Your task to perform on an android device: Add energizer triple a to the cart on walmart, then select checkout. Image 0: 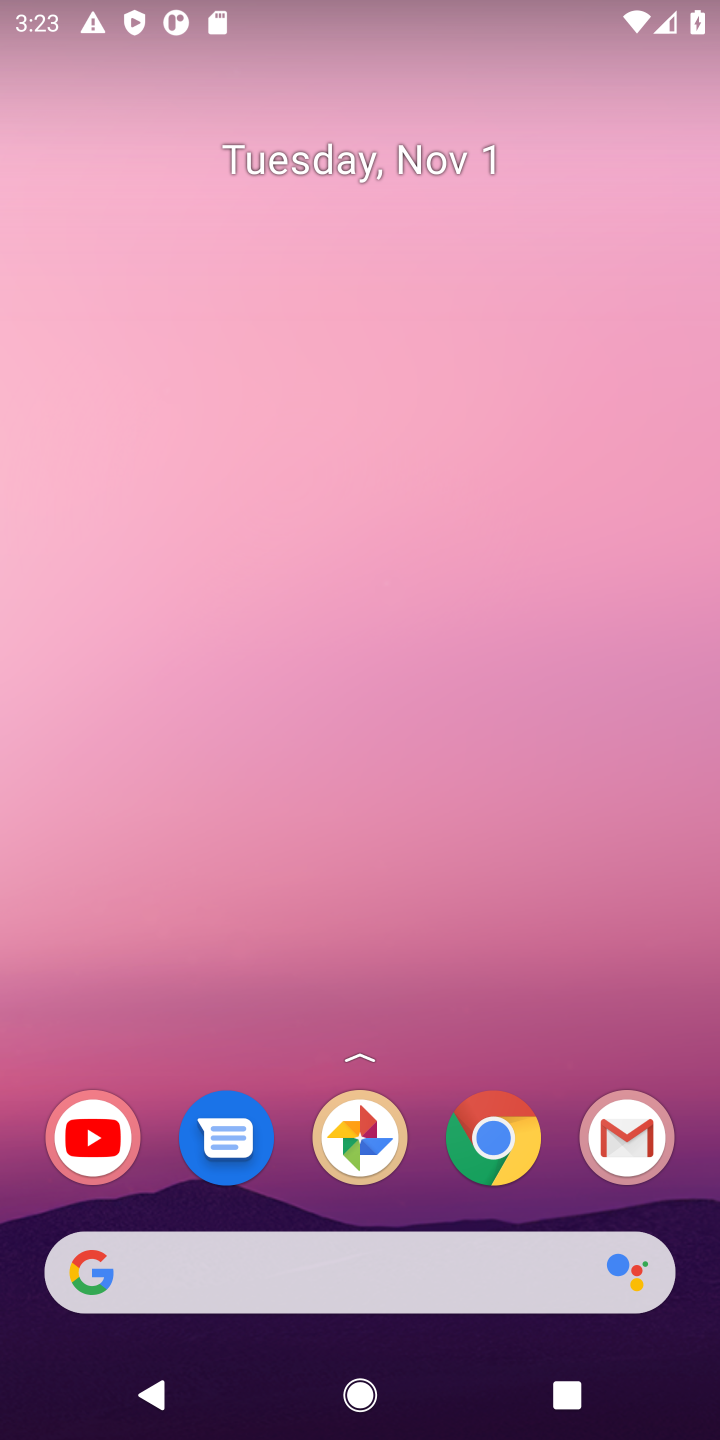
Step 0: click (498, 1145)
Your task to perform on an android device: Add energizer triple a to the cart on walmart, then select checkout. Image 1: 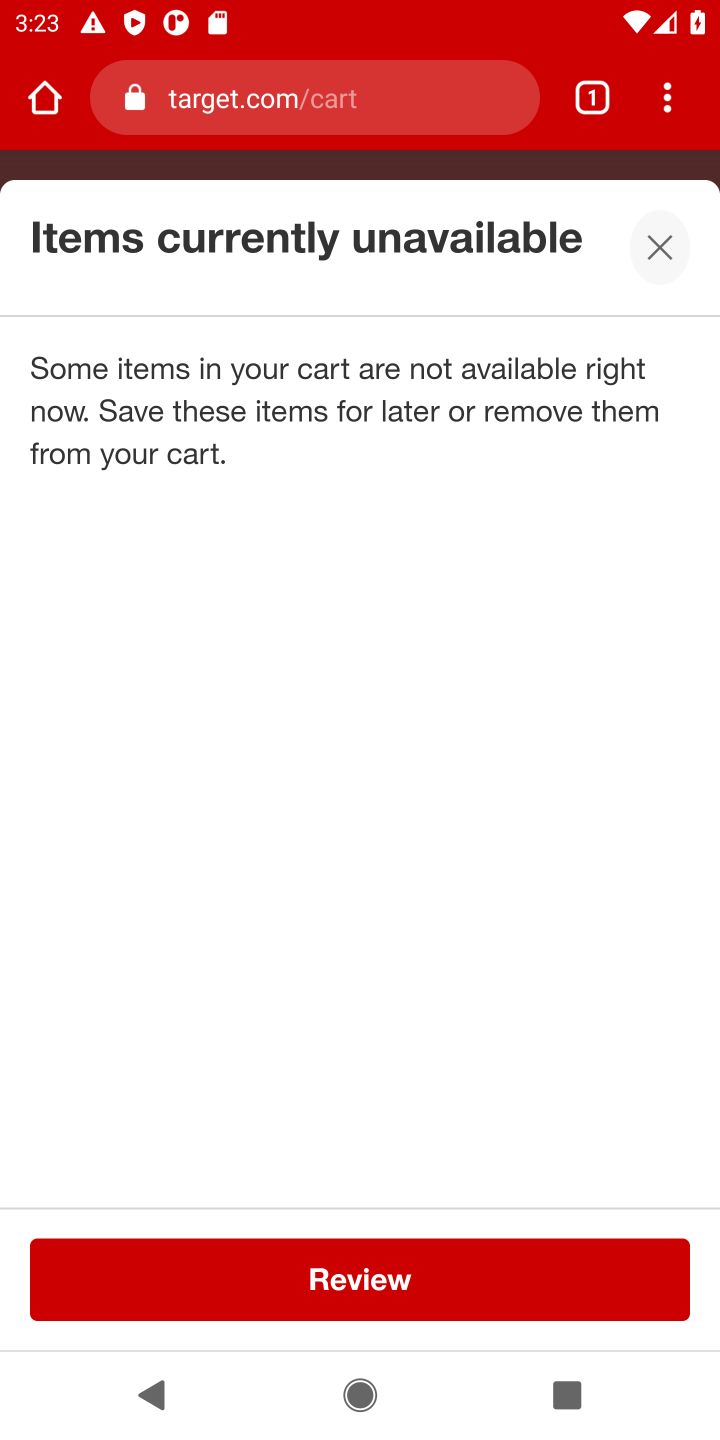
Step 1: click (346, 98)
Your task to perform on an android device: Add energizer triple a to the cart on walmart, then select checkout. Image 2: 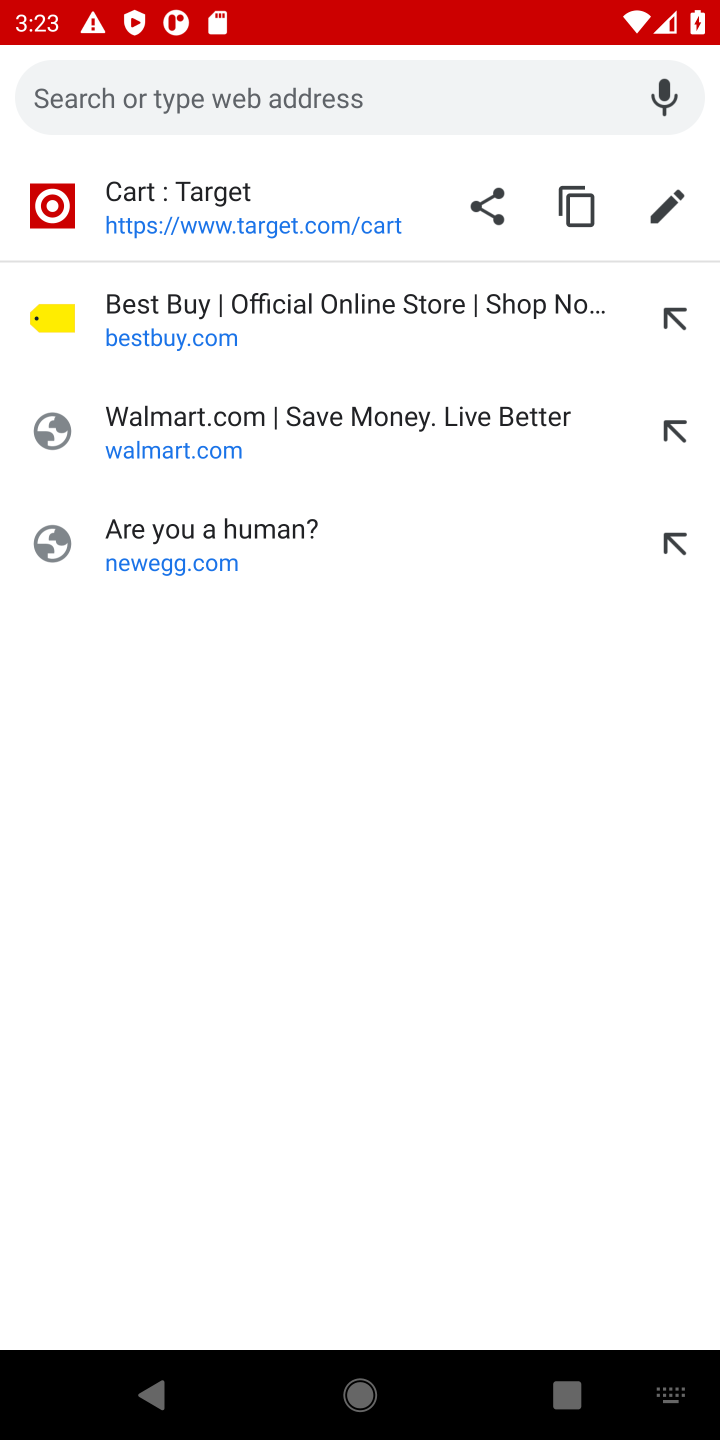
Step 2: type "walmart"
Your task to perform on an android device: Add energizer triple a to the cart on walmart, then select checkout. Image 3: 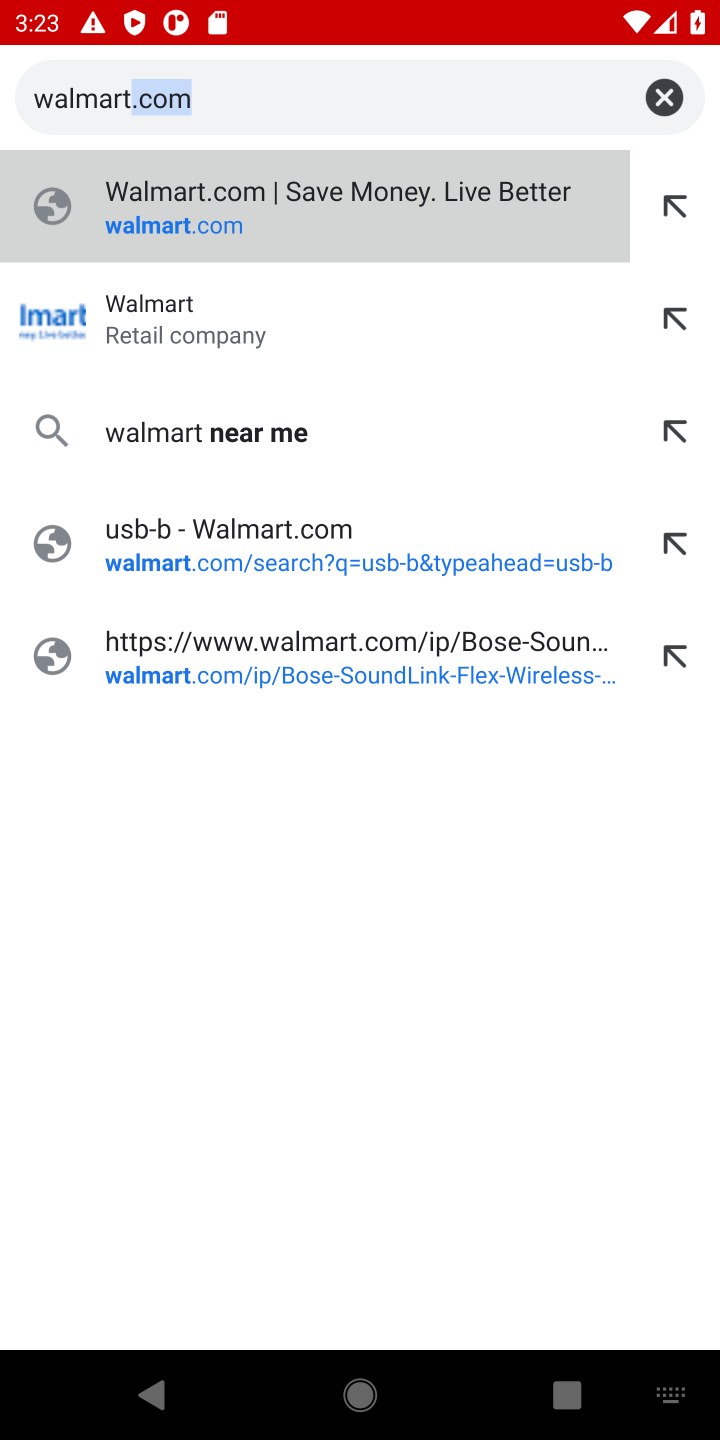
Step 3: click (422, 97)
Your task to perform on an android device: Add energizer triple a to the cart on walmart, then select checkout. Image 4: 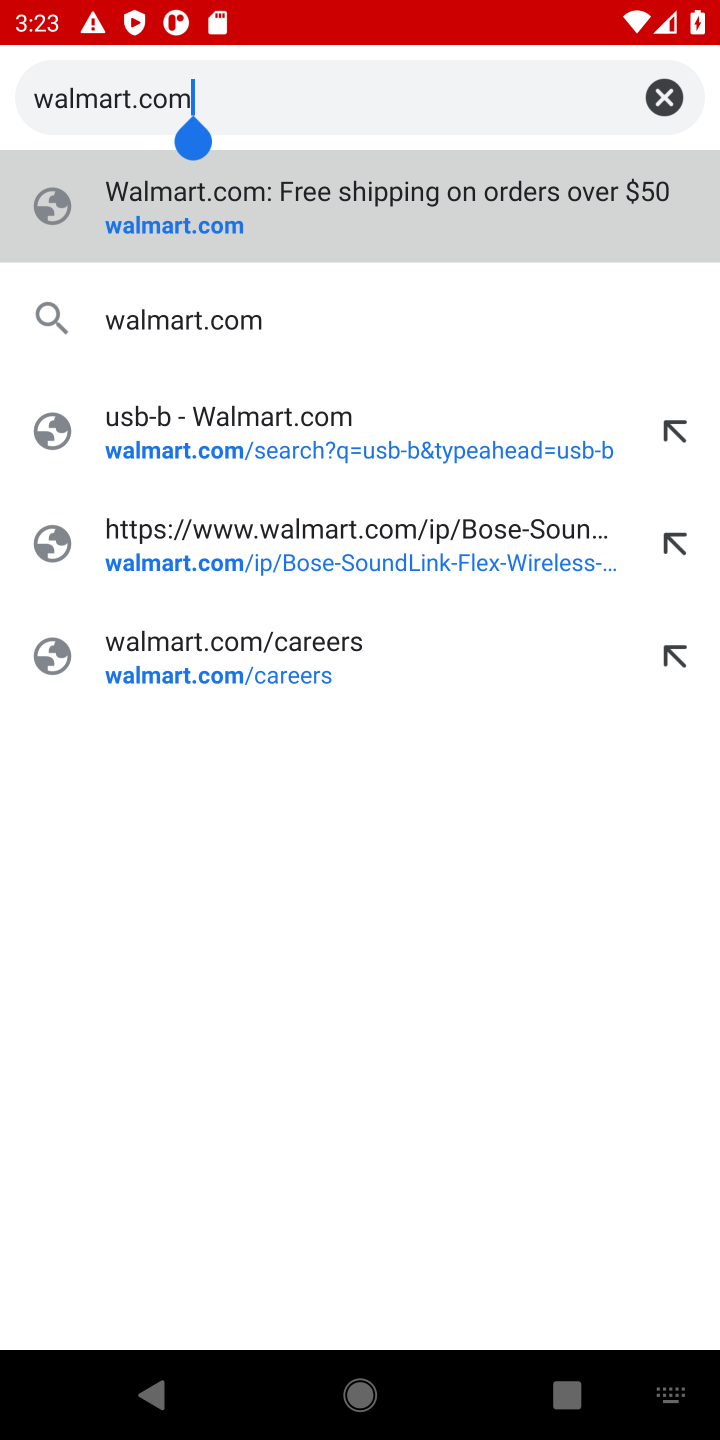
Step 4: click (270, 186)
Your task to perform on an android device: Add energizer triple a to the cart on walmart, then select checkout. Image 5: 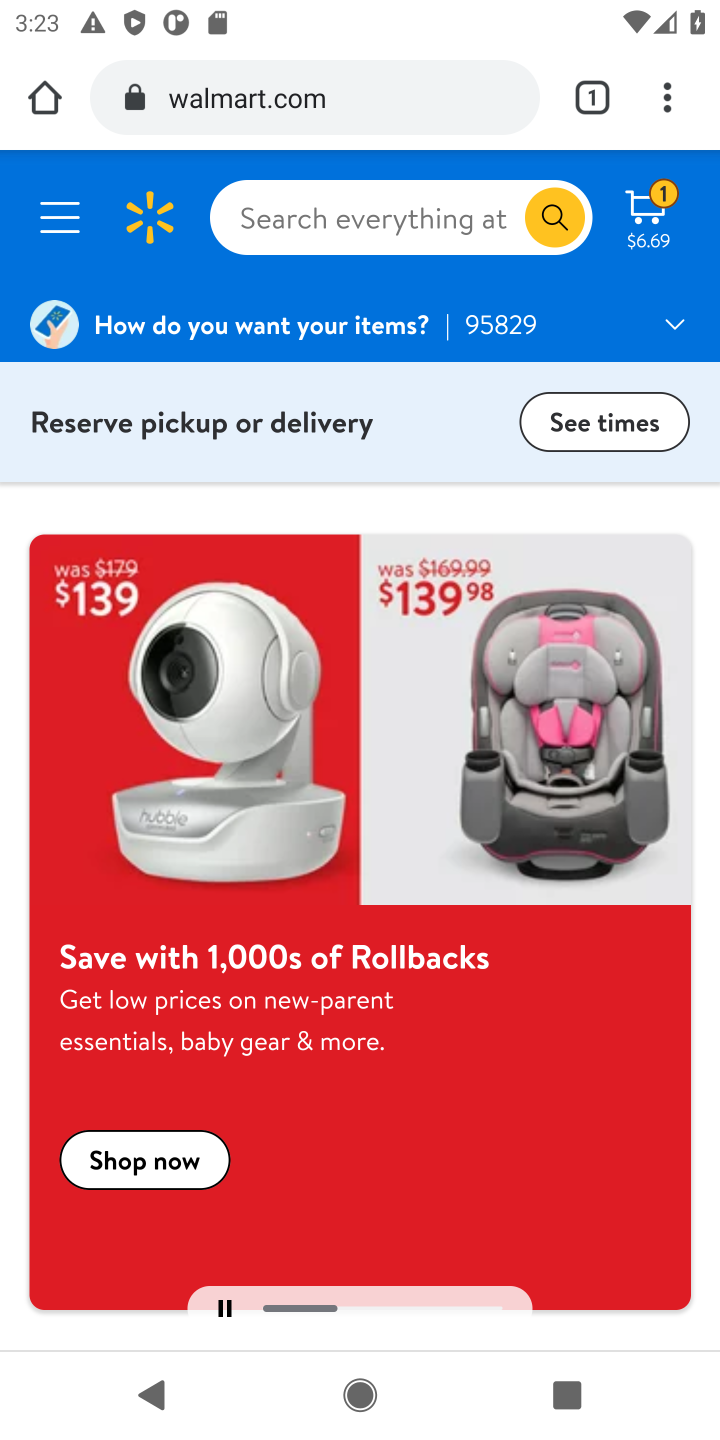
Step 5: click (337, 222)
Your task to perform on an android device: Add energizer triple a to the cart on walmart, then select checkout. Image 6: 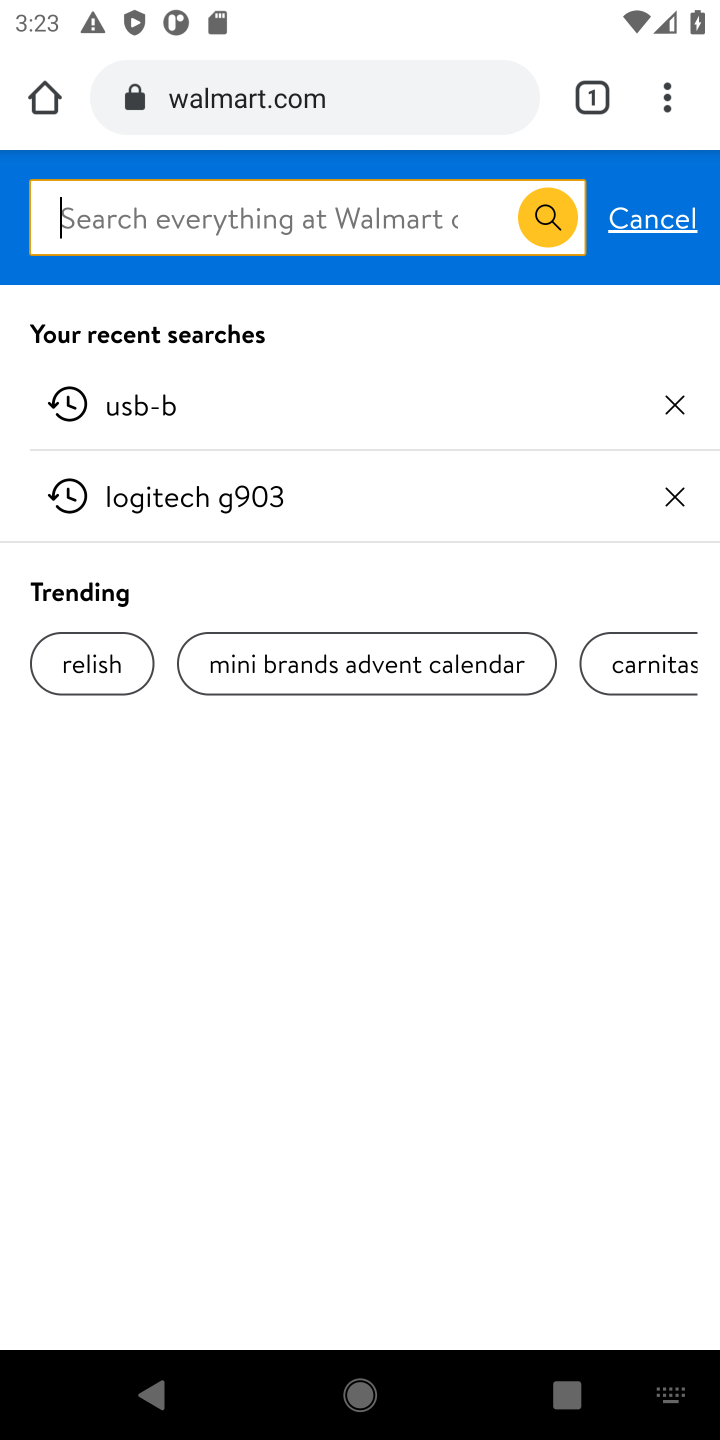
Step 6: type "energizer triple a"
Your task to perform on an android device: Add energizer triple a to the cart on walmart, then select checkout. Image 7: 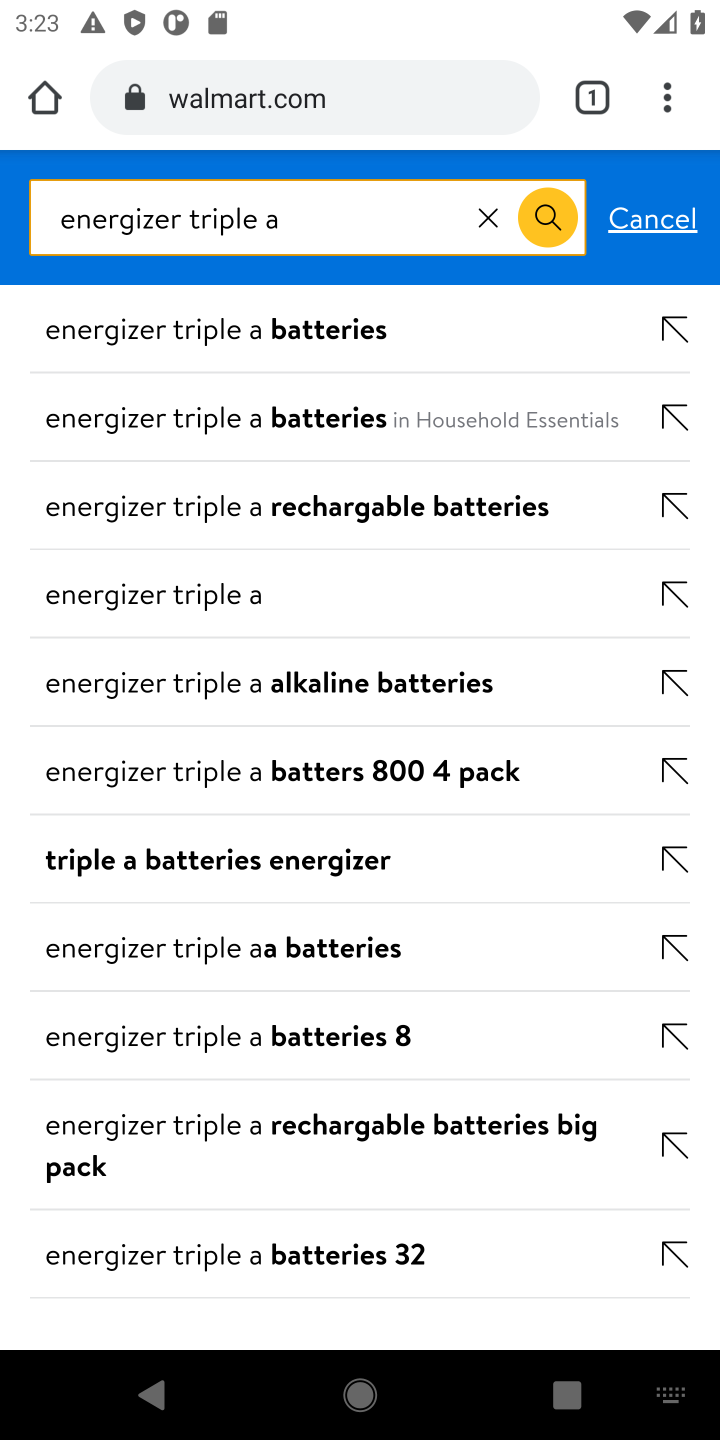
Step 7: click (113, 303)
Your task to perform on an android device: Add energizer triple a to the cart on walmart, then select checkout. Image 8: 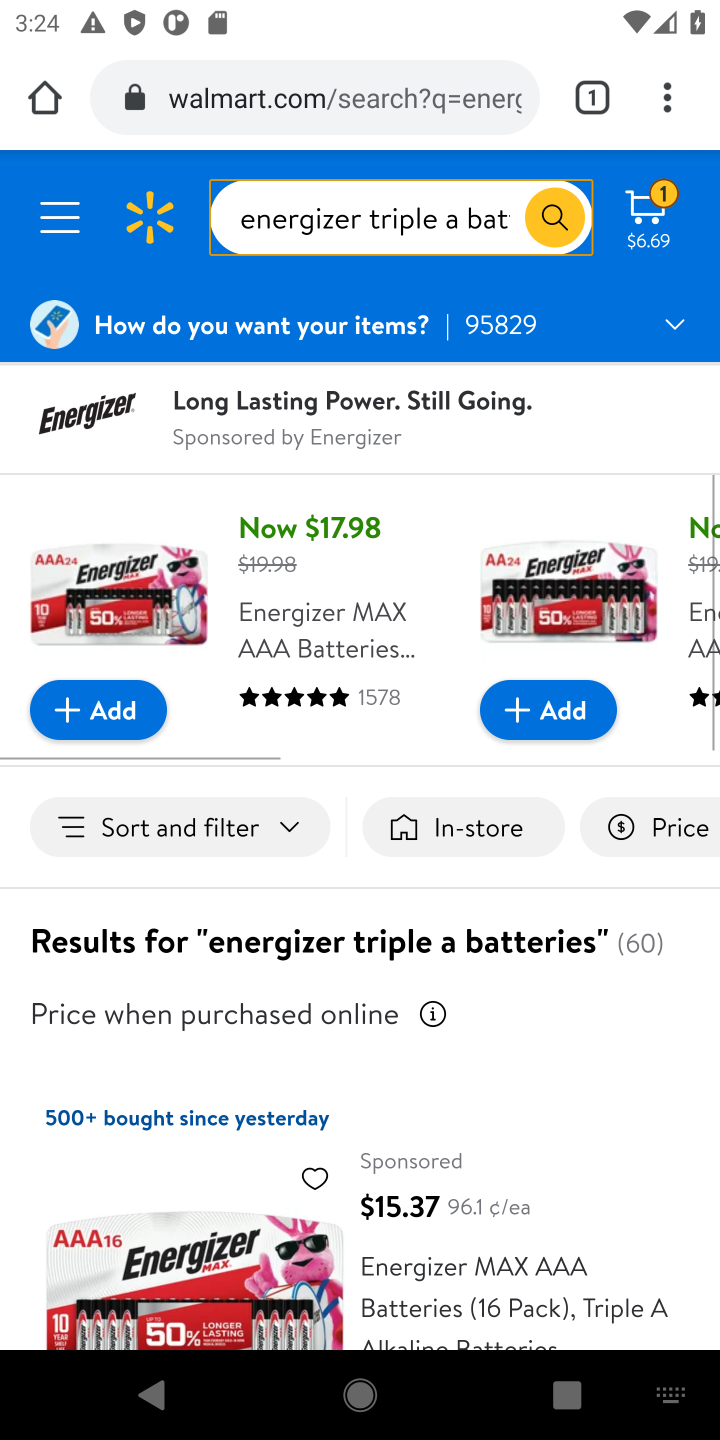
Step 8: click (109, 715)
Your task to perform on an android device: Add energizer triple a to the cart on walmart, then select checkout. Image 9: 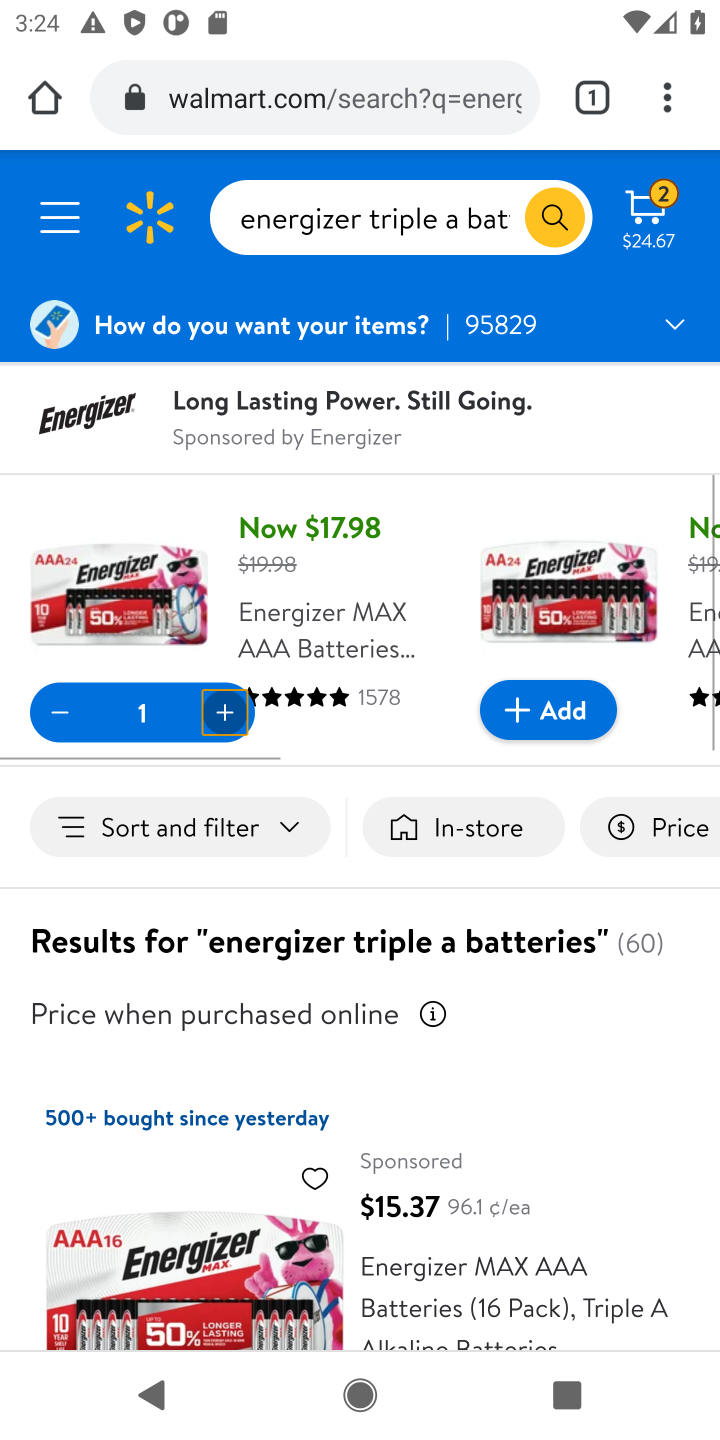
Step 9: click (632, 207)
Your task to perform on an android device: Add energizer triple a to the cart on walmart, then select checkout. Image 10: 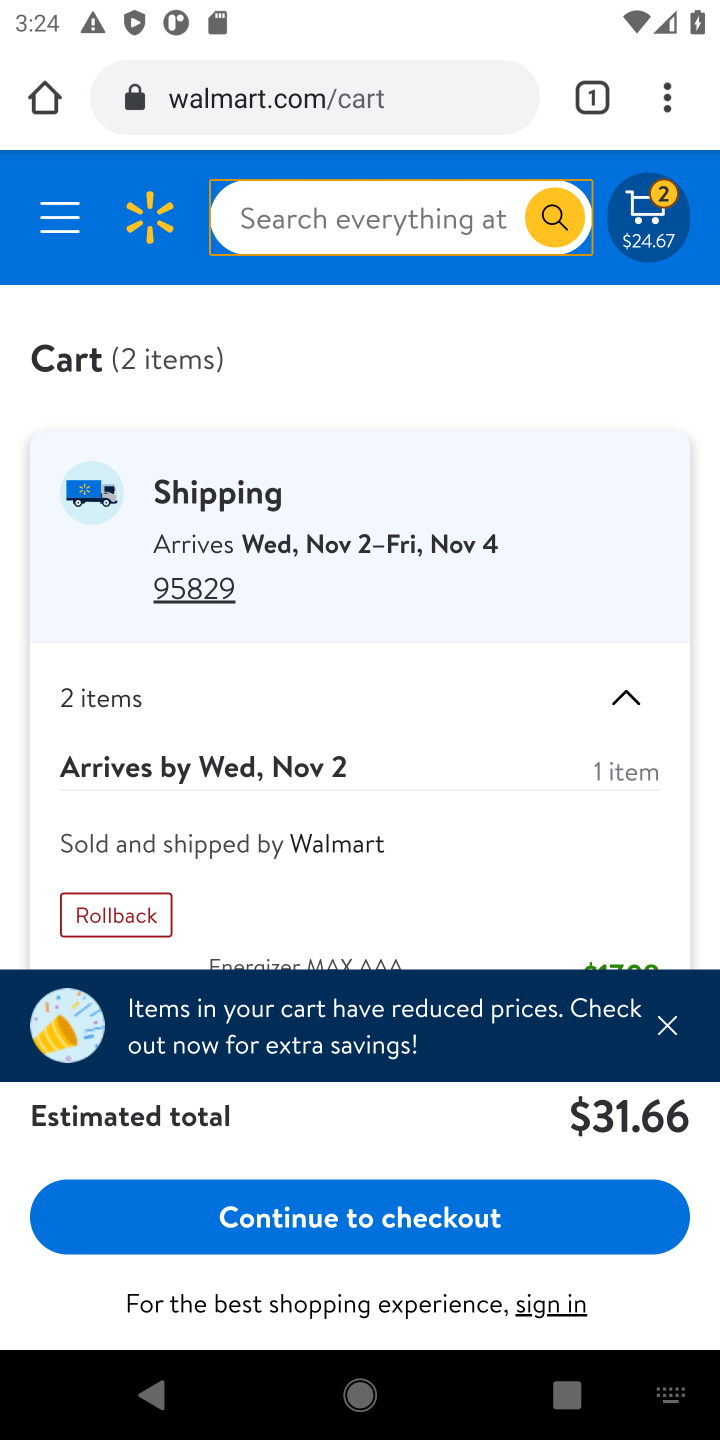
Step 10: click (355, 1225)
Your task to perform on an android device: Add energizer triple a to the cart on walmart, then select checkout. Image 11: 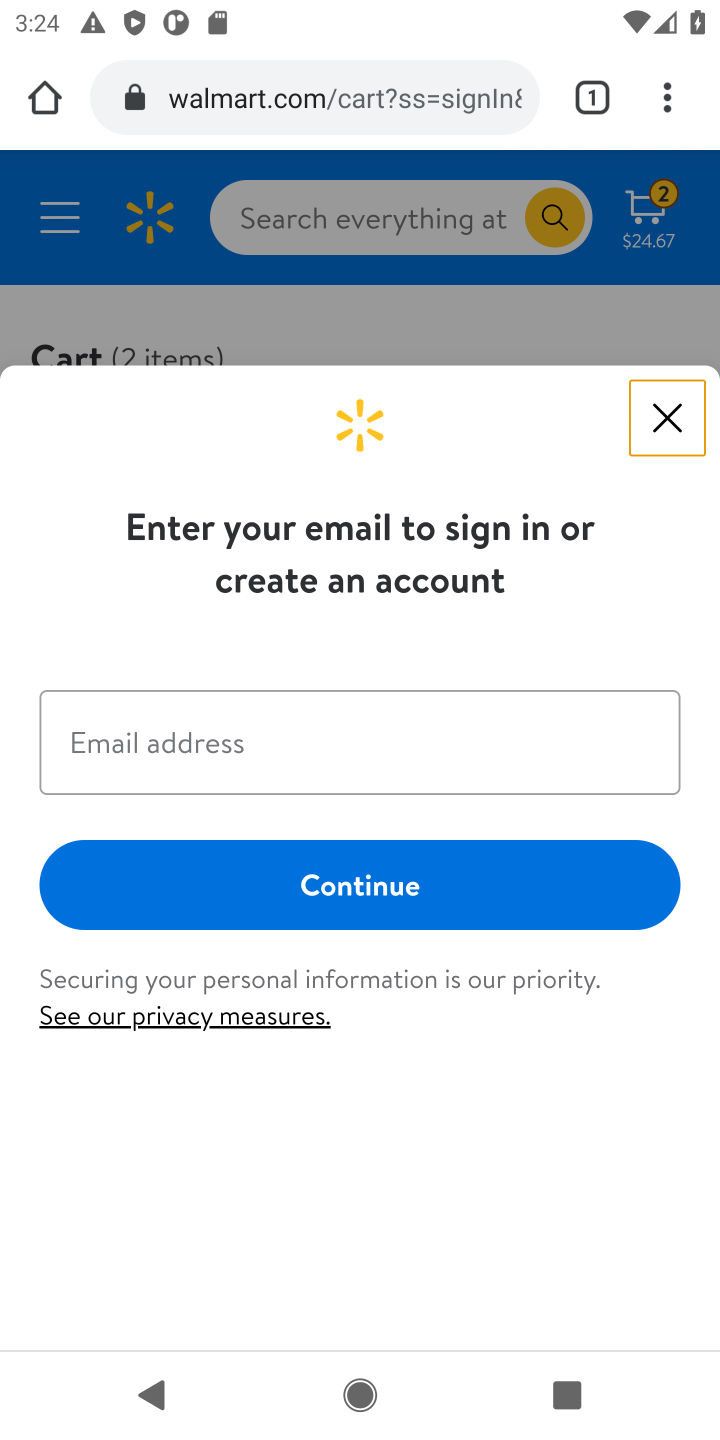
Step 11: click (651, 421)
Your task to perform on an android device: Add energizer triple a to the cart on walmart, then select checkout. Image 12: 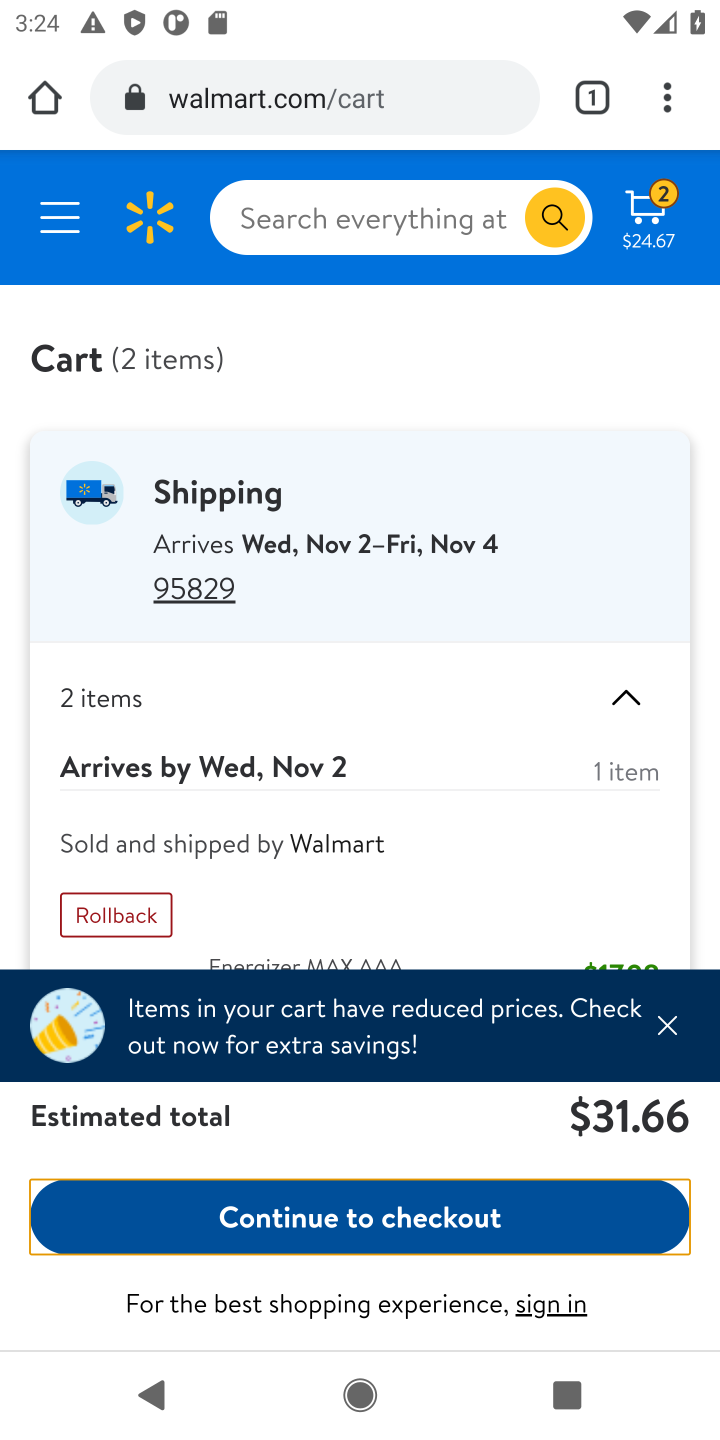
Step 12: task complete